Your task to perform on an android device: open app "Roku - Official Remote Control" (install if not already installed) Image 0: 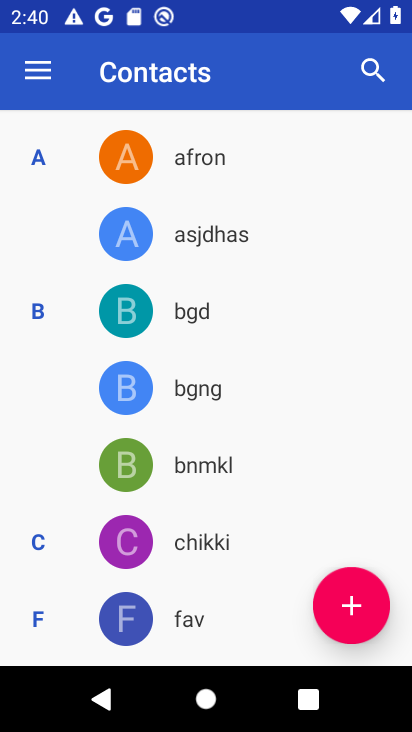
Step 0: click (205, 707)
Your task to perform on an android device: open app "Roku - Official Remote Control" (install if not already installed) Image 1: 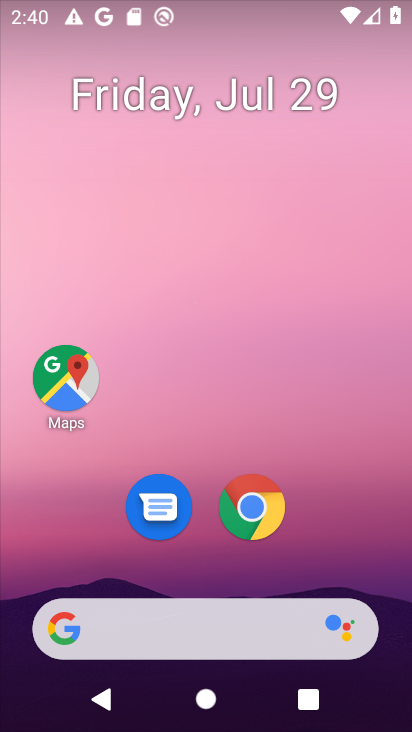
Step 1: drag from (196, 582) to (319, 23)
Your task to perform on an android device: open app "Roku - Official Remote Control" (install if not already installed) Image 2: 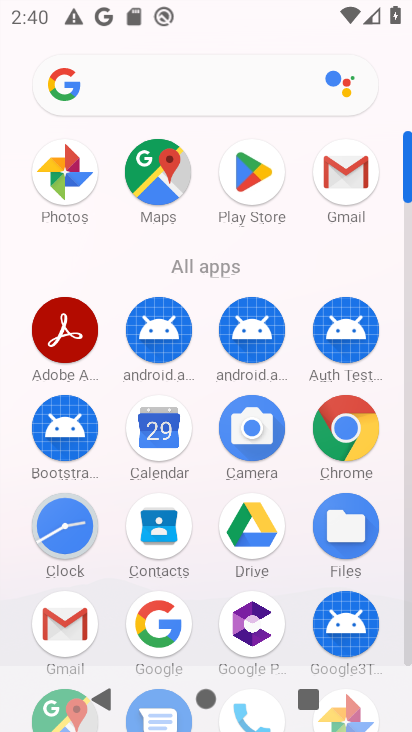
Step 2: click (260, 212)
Your task to perform on an android device: open app "Roku - Official Remote Control" (install if not already installed) Image 3: 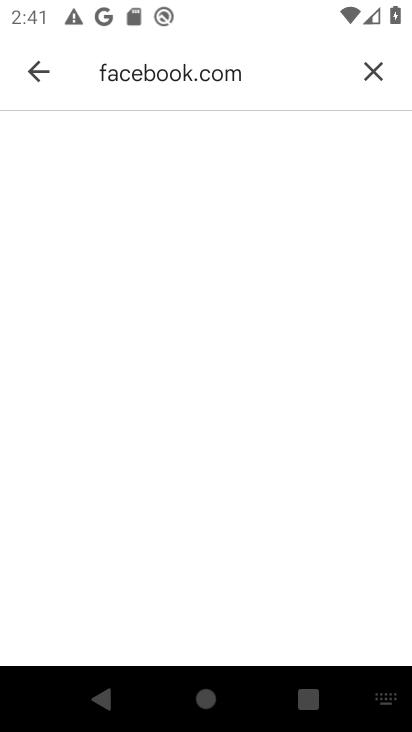
Step 3: click (365, 59)
Your task to perform on an android device: open app "Roku - Official Remote Control" (install if not already installed) Image 4: 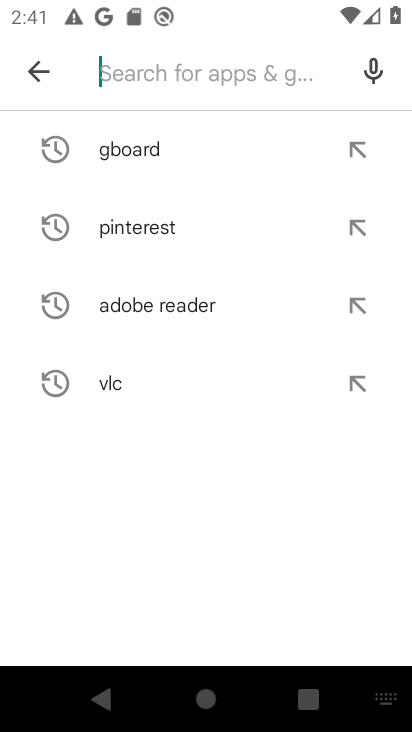
Step 4: type "roku"
Your task to perform on an android device: open app "Roku - Official Remote Control" (install if not already installed) Image 5: 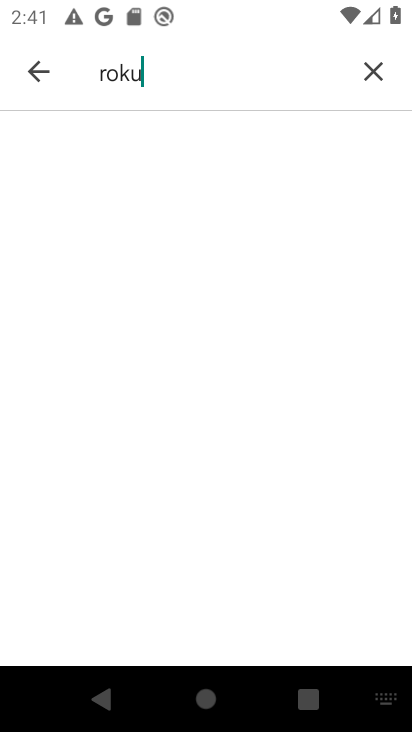
Step 5: task complete